Your task to perform on an android device: open wifi settings Image 0: 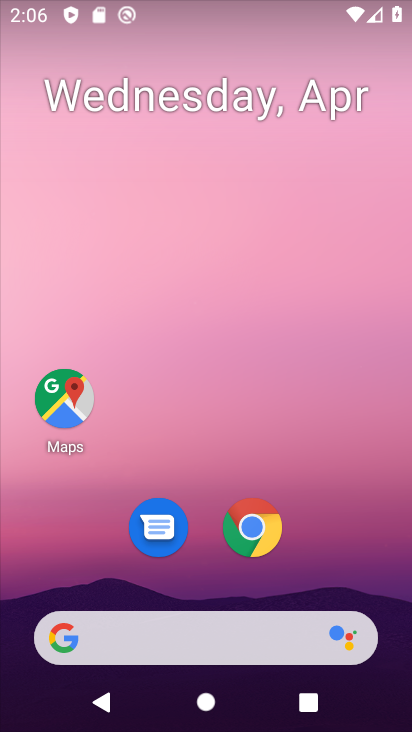
Step 0: drag from (359, 531) to (314, 2)
Your task to perform on an android device: open wifi settings Image 1: 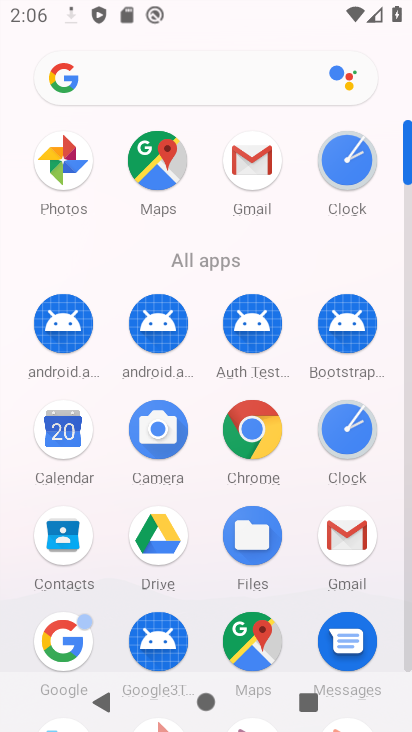
Step 1: drag from (351, 403) to (297, 192)
Your task to perform on an android device: open wifi settings Image 2: 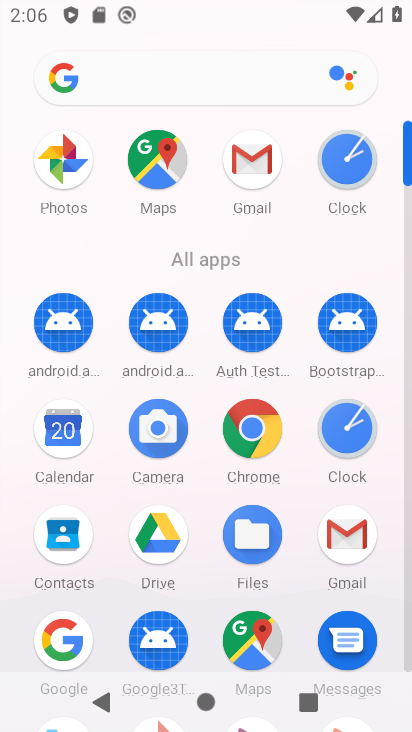
Step 2: drag from (378, 456) to (378, 153)
Your task to perform on an android device: open wifi settings Image 3: 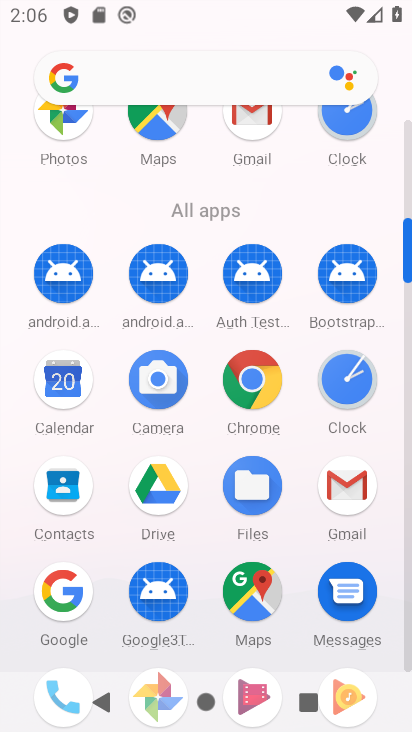
Step 3: drag from (383, 528) to (336, 135)
Your task to perform on an android device: open wifi settings Image 4: 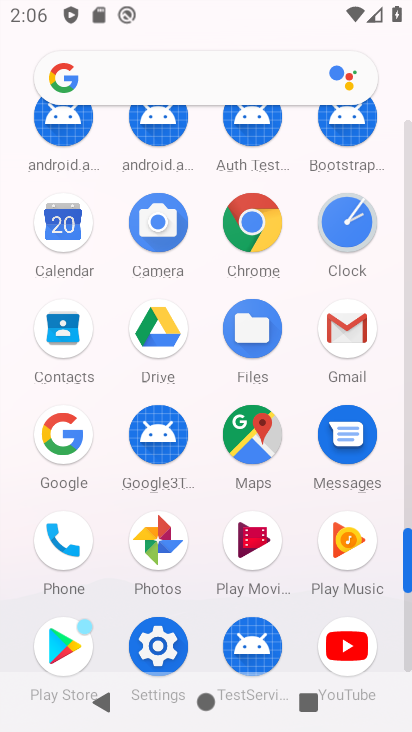
Step 4: click (169, 645)
Your task to perform on an android device: open wifi settings Image 5: 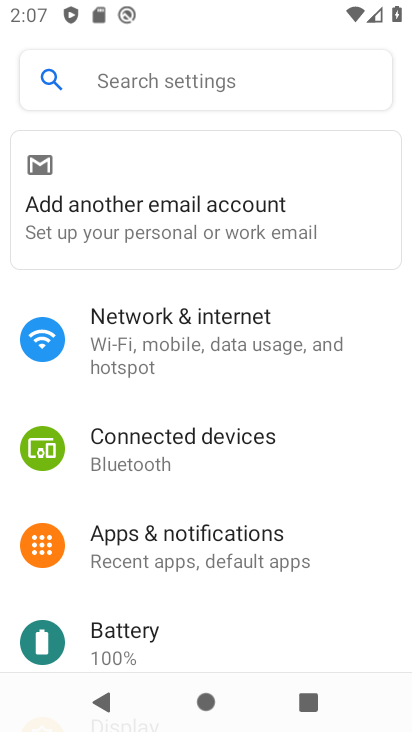
Step 5: click (141, 330)
Your task to perform on an android device: open wifi settings Image 6: 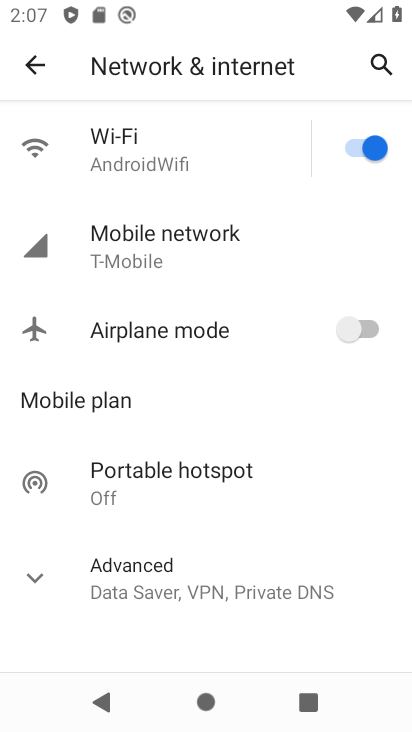
Step 6: click (82, 172)
Your task to perform on an android device: open wifi settings Image 7: 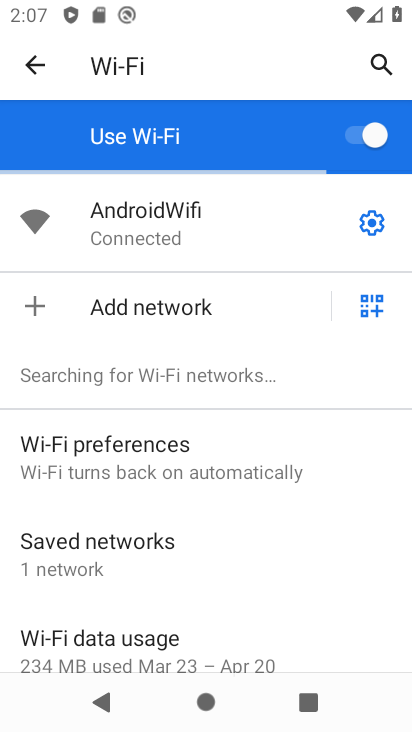
Step 7: task complete